Your task to perform on an android device: check out phone information Image 0: 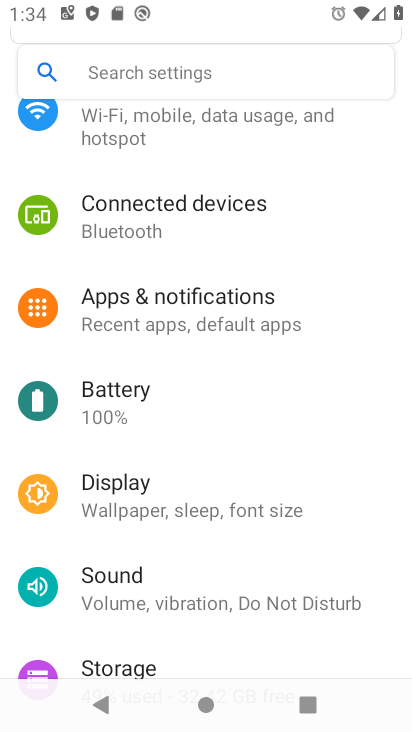
Step 0: press home button
Your task to perform on an android device: check out phone information Image 1: 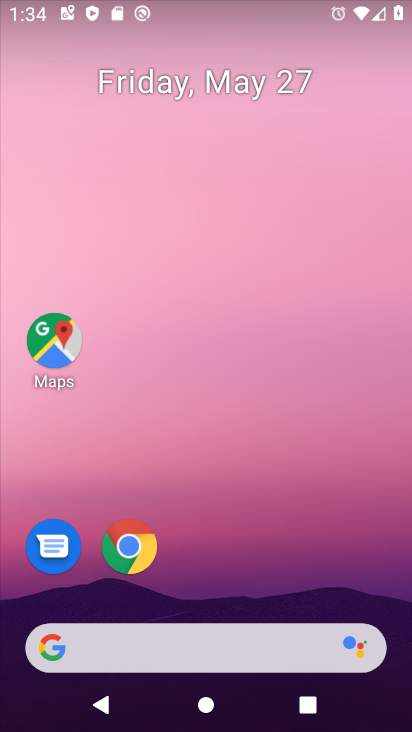
Step 1: drag from (255, 667) to (337, 91)
Your task to perform on an android device: check out phone information Image 2: 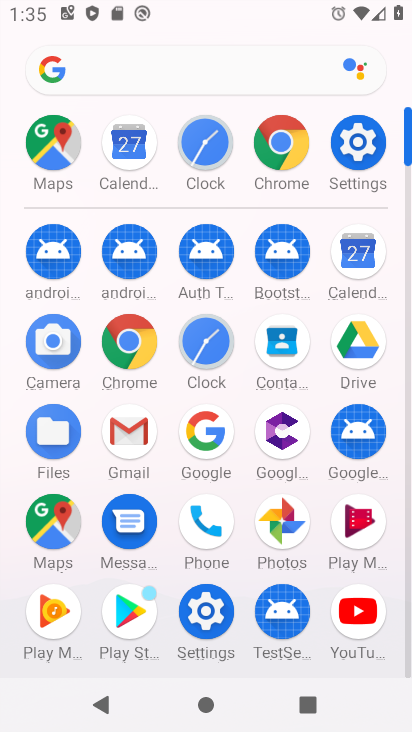
Step 2: click (363, 152)
Your task to perform on an android device: check out phone information Image 3: 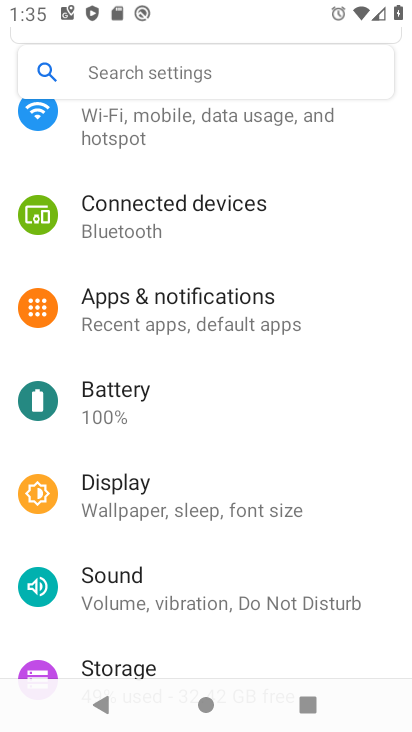
Step 3: click (144, 74)
Your task to perform on an android device: check out phone information Image 4: 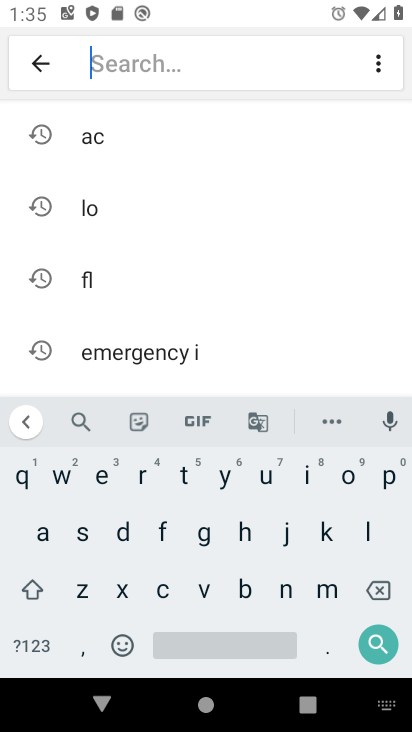
Step 4: click (40, 527)
Your task to perform on an android device: check out phone information Image 5: 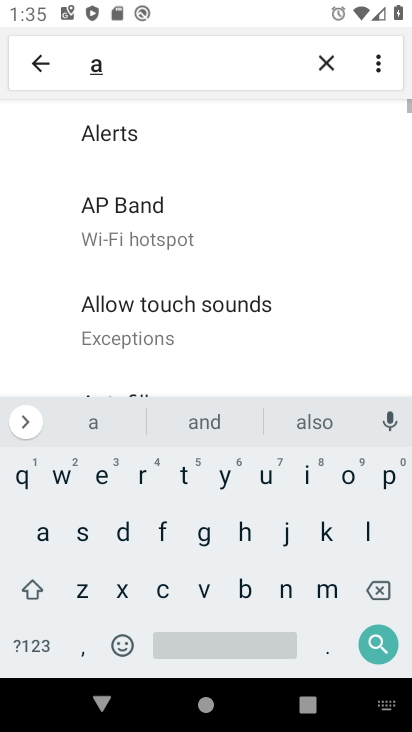
Step 5: click (245, 589)
Your task to perform on an android device: check out phone information Image 6: 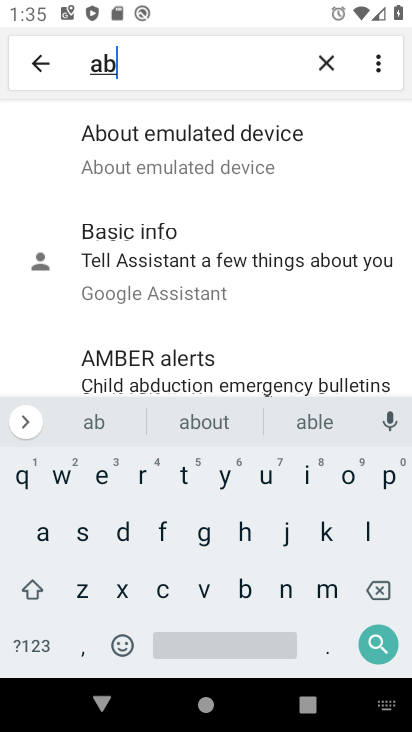
Step 6: click (252, 148)
Your task to perform on an android device: check out phone information Image 7: 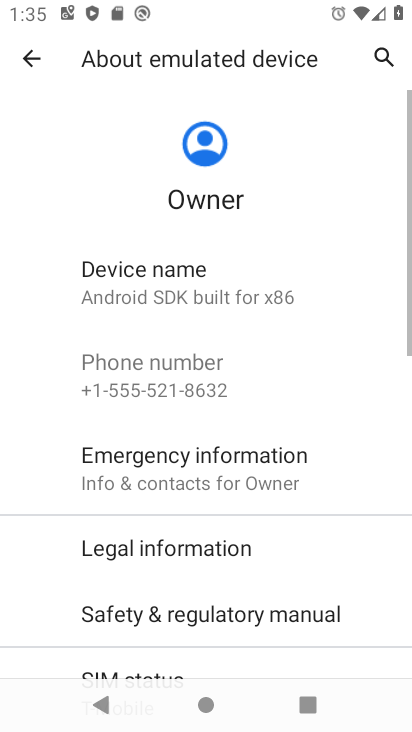
Step 7: task complete